Your task to perform on an android device: Search for hotels in Buenos aires Image 0: 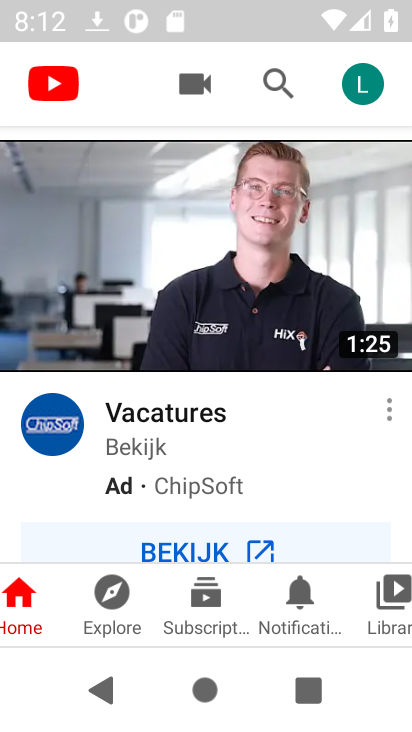
Step 0: press home button
Your task to perform on an android device: Search for hotels in Buenos aires Image 1: 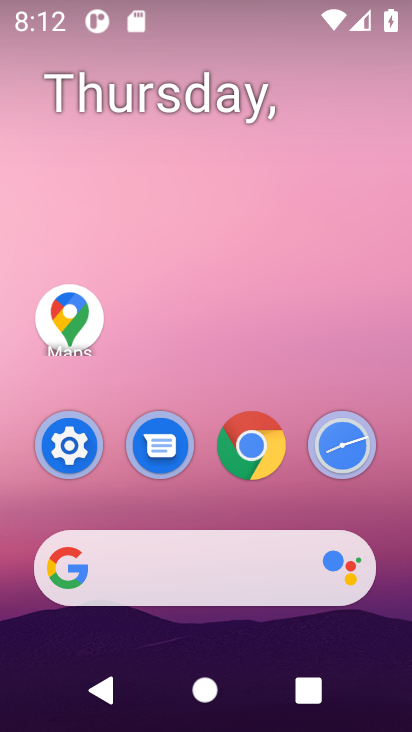
Step 1: click (152, 569)
Your task to perform on an android device: Search for hotels in Buenos aires Image 2: 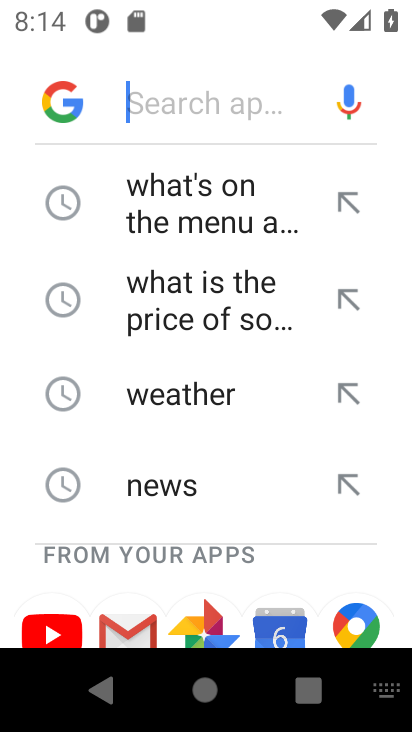
Step 2: type "Search for hotels in Buenos aires"
Your task to perform on an android device: Search for hotels in Buenos aires Image 3: 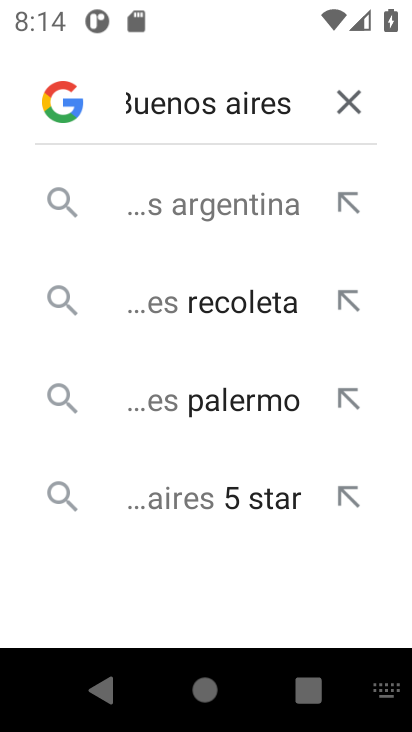
Step 3: click (230, 172)
Your task to perform on an android device: Search for hotels in Buenos aires Image 4: 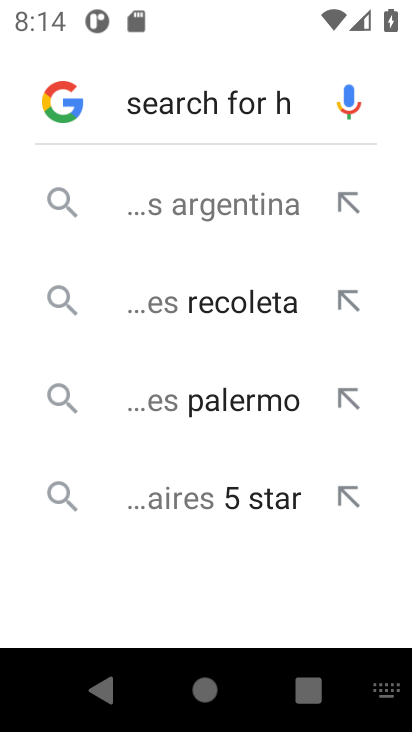
Step 4: task complete